Your task to perform on an android device: change the upload size in google photos Image 0: 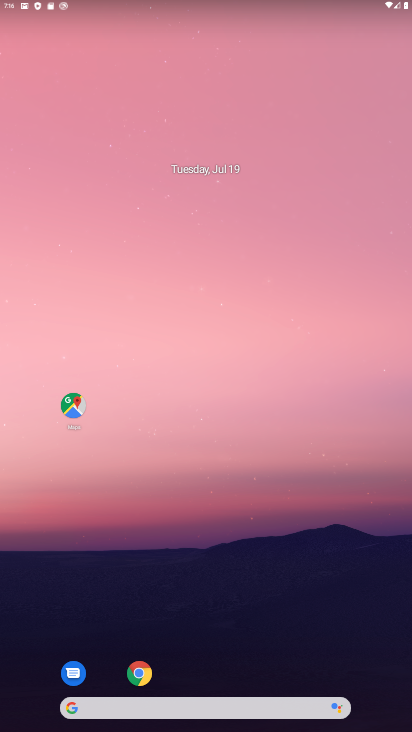
Step 0: drag from (172, 466) to (133, 4)
Your task to perform on an android device: change the upload size in google photos Image 1: 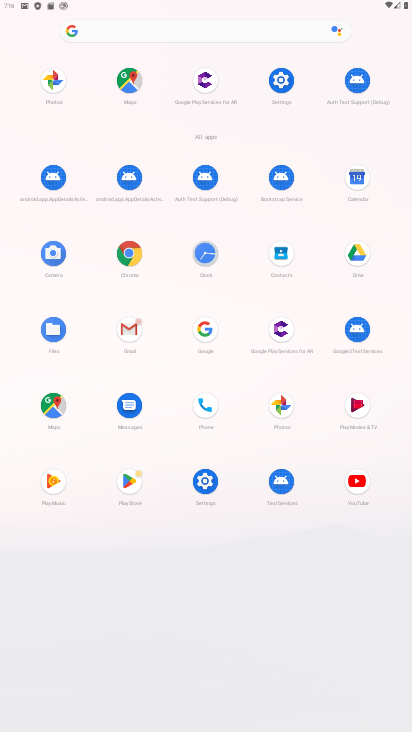
Step 1: click (274, 404)
Your task to perform on an android device: change the upload size in google photos Image 2: 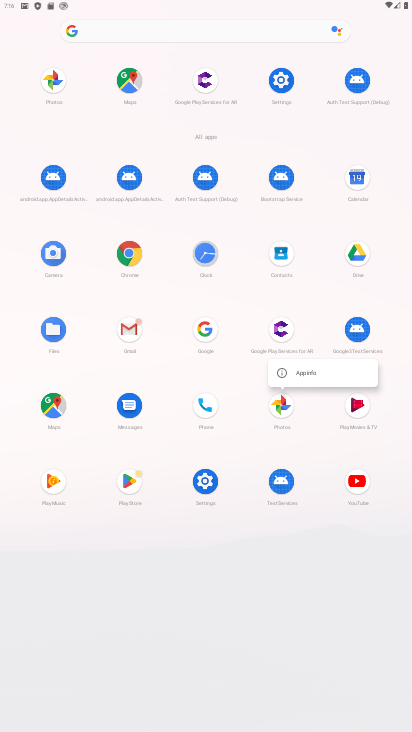
Step 2: click (279, 407)
Your task to perform on an android device: change the upload size in google photos Image 3: 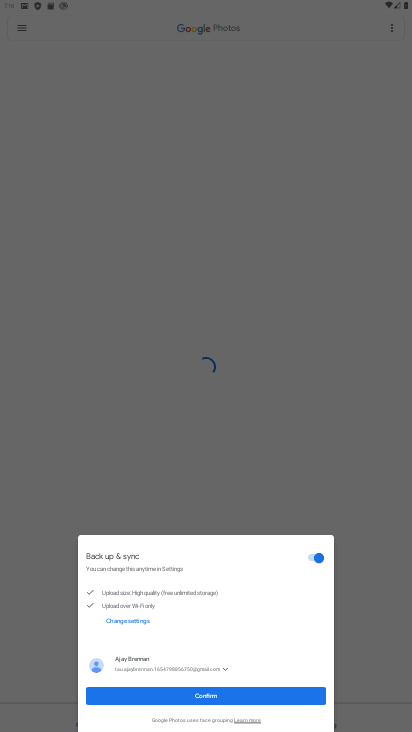
Step 3: click (196, 690)
Your task to perform on an android device: change the upload size in google photos Image 4: 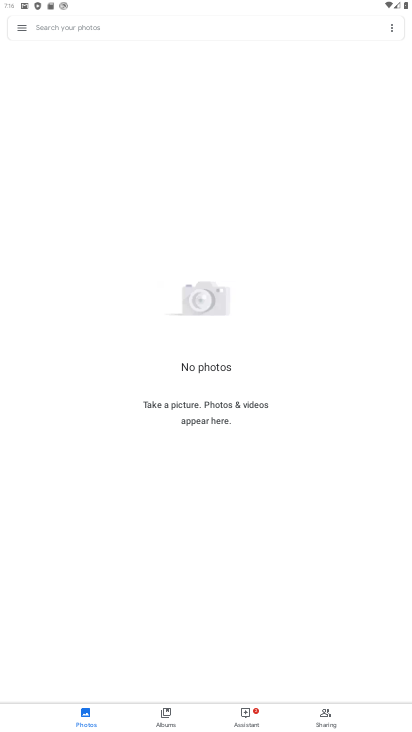
Step 4: click (17, 34)
Your task to perform on an android device: change the upload size in google photos Image 5: 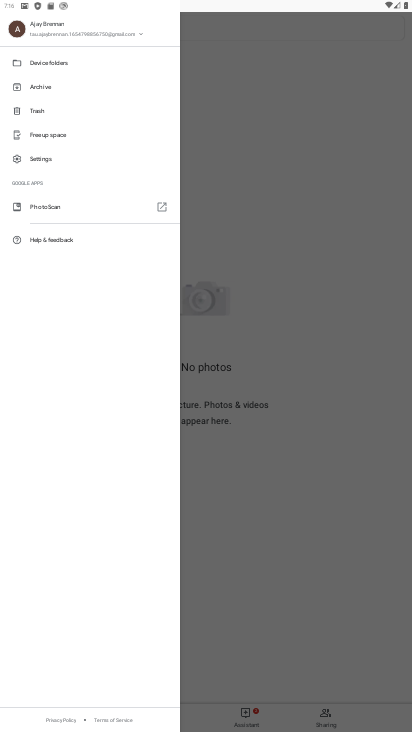
Step 5: click (46, 151)
Your task to perform on an android device: change the upload size in google photos Image 6: 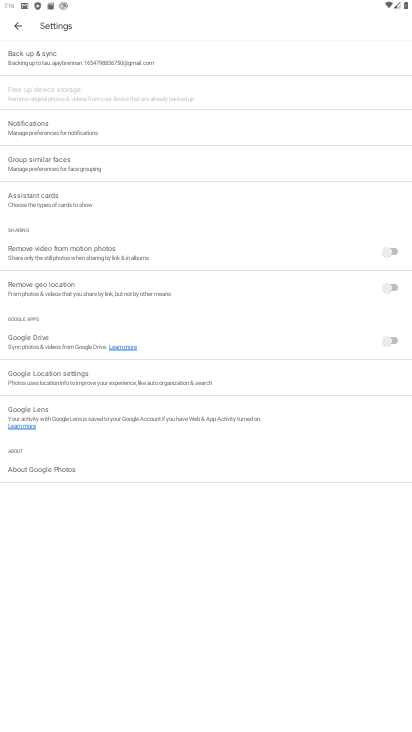
Step 6: click (56, 52)
Your task to perform on an android device: change the upload size in google photos Image 7: 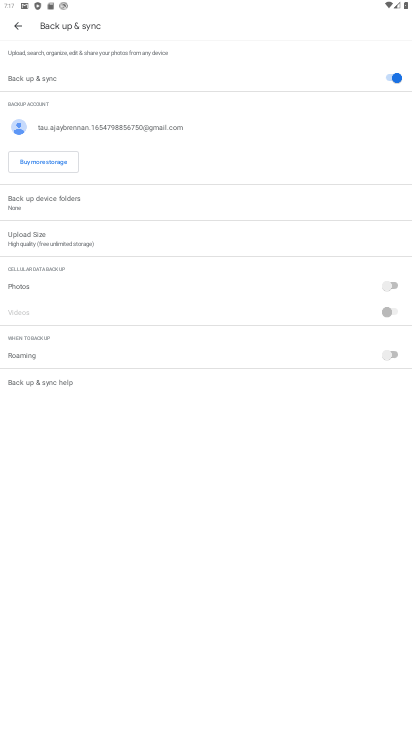
Step 7: click (81, 240)
Your task to perform on an android device: change the upload size in google photos Image 8: 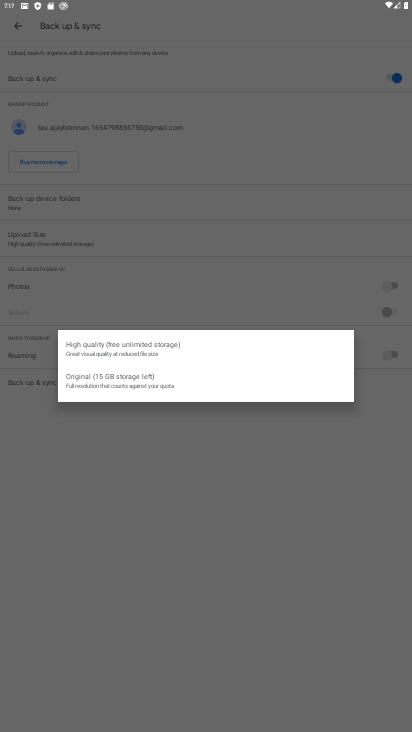
Step 8: click (103, 374)
Your task to perform on an android device: change the upload size in google photos Image 9: 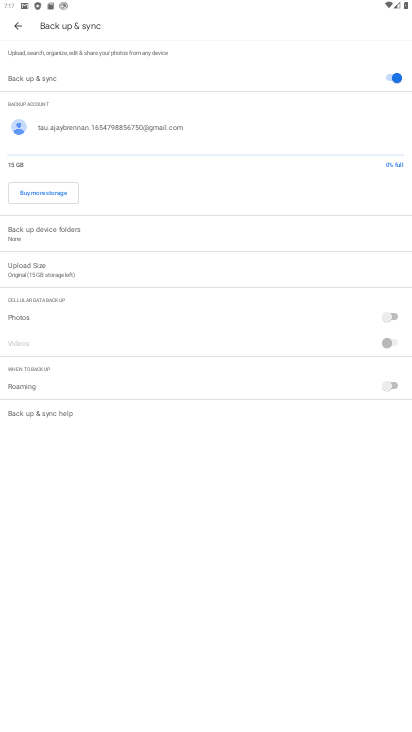
Step 9: task complete